Your task to perform on an android device: Open the Play Movies app and select the watchlist tab. Image 0: 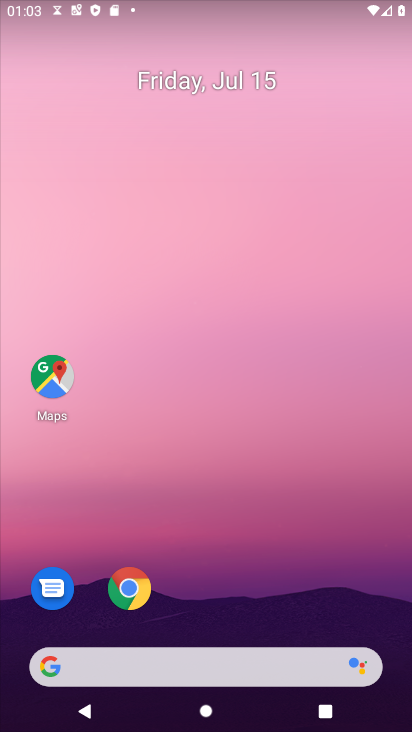
Step 0: drag from (203, 595) to (299, 3)
Your task to perform on an android device: Open the Play Movies app and select the watchlist tab. Image 1: 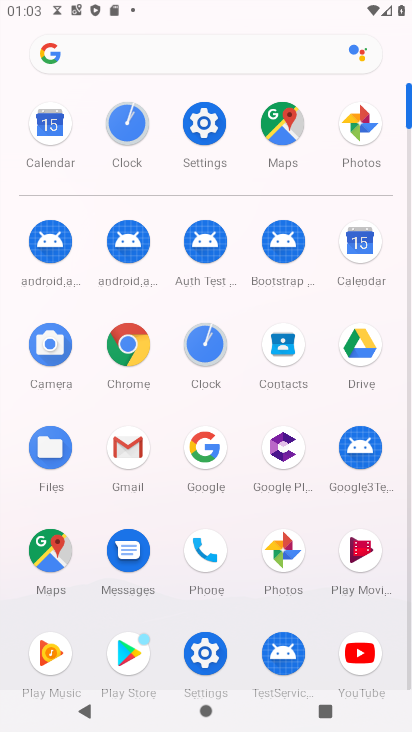
Step 1: click (357, 541)
Your task to perform on an android device: Open the Play Movies app and select the watchlist tab. Image 2: 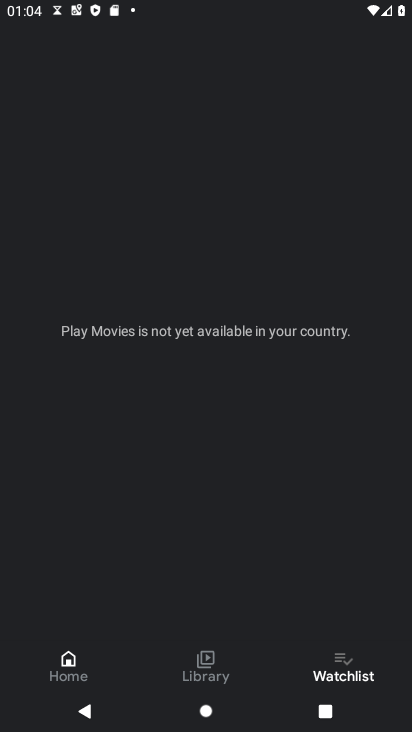
Step 2: task complete